Your task to perform on an android device: change alarm snooze length Image 0: 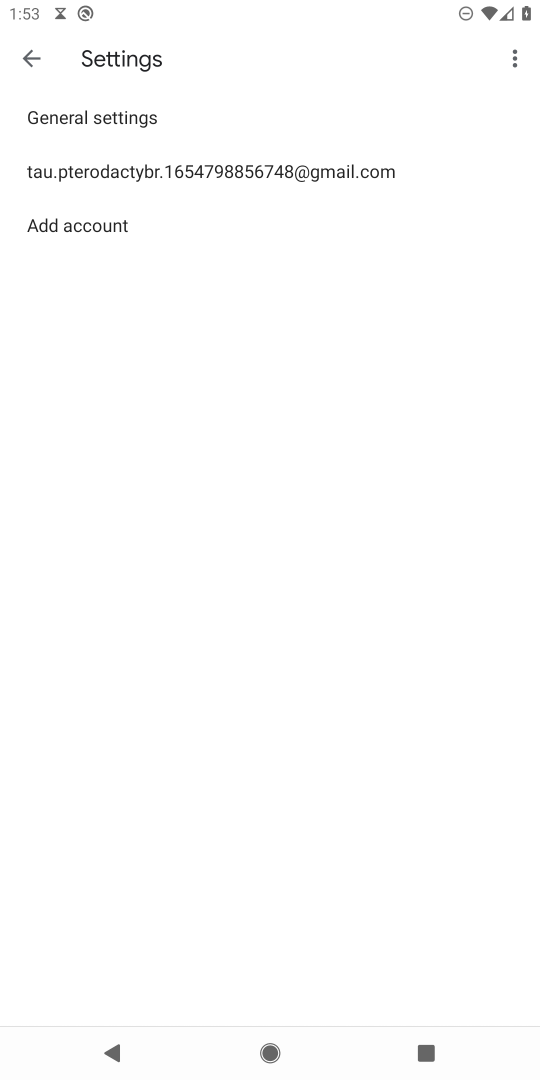
Step 0: press home button
Your task to perform on an android device: change alarm snooze length Image 1: 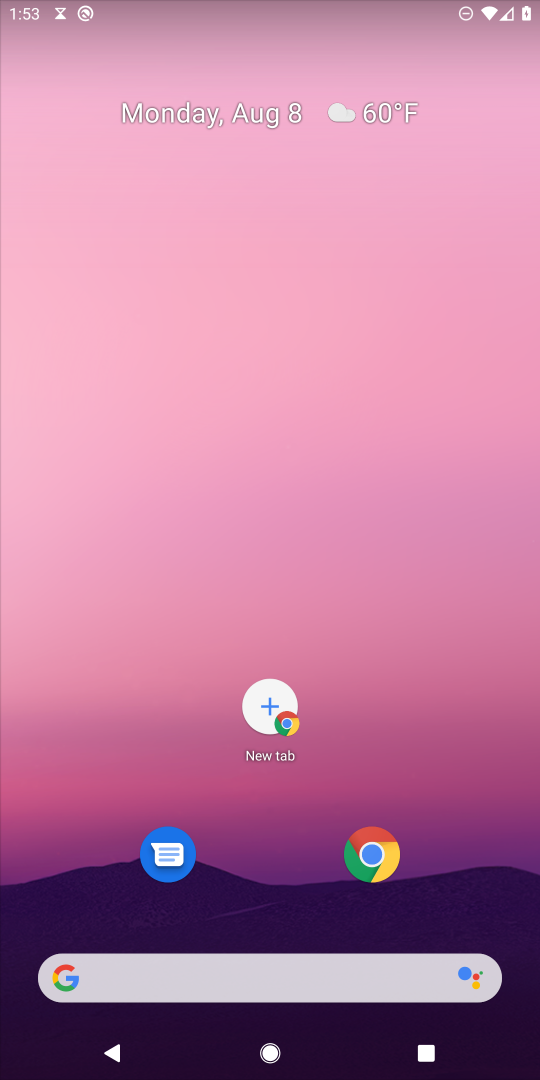
Step 1: drag from (474, 521) to (488, 177)
Your task to perform on an android device: change alarm snooze length Image 2: 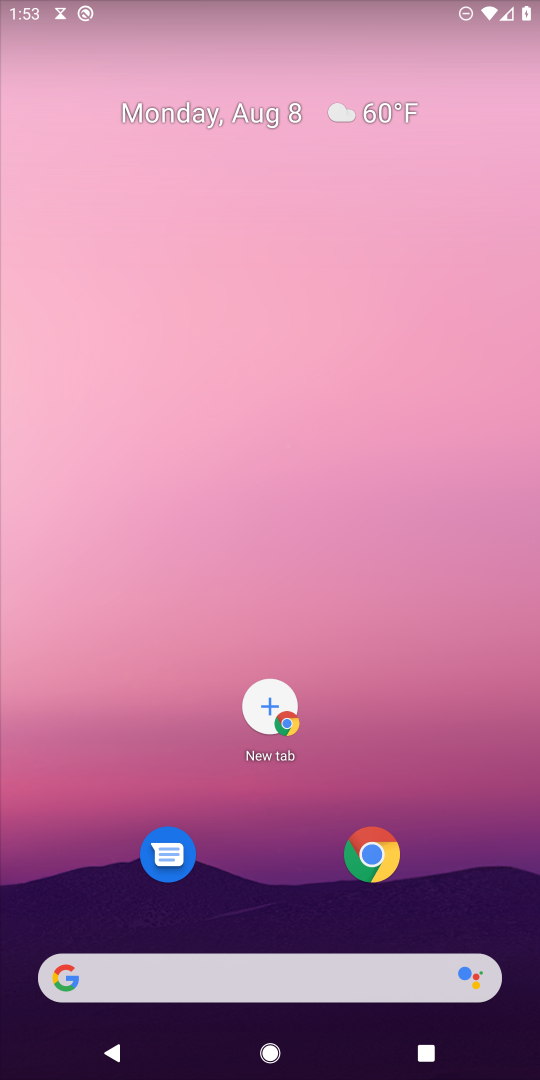
Step 2: drag from (445, 867) to (445, 74)
Your task to perform on an android device: change alarm snooze length Image 3: 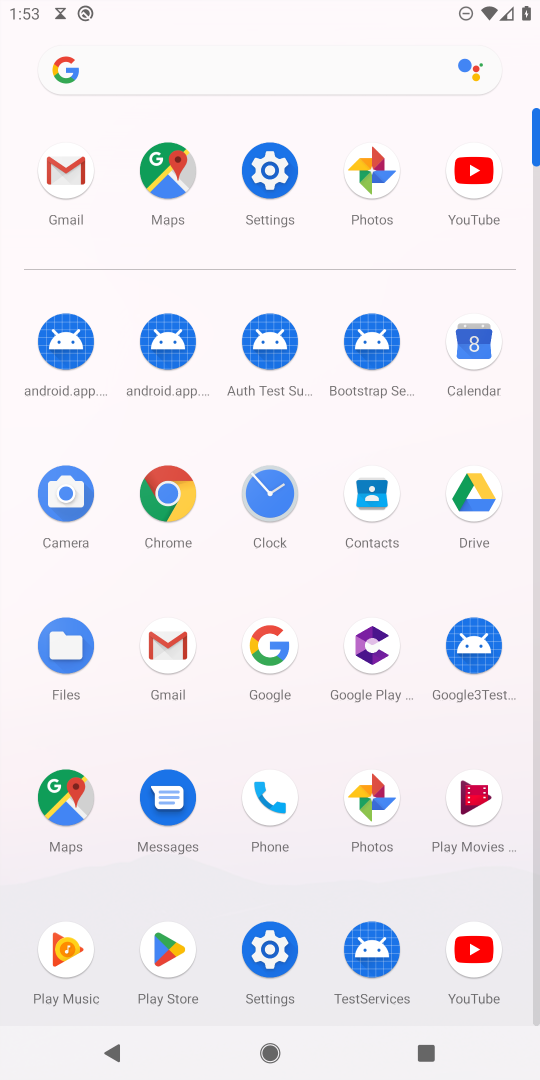
Step 3: click (283, 493)
Your task to perform on an android device: change alarm snooze length Image 4: 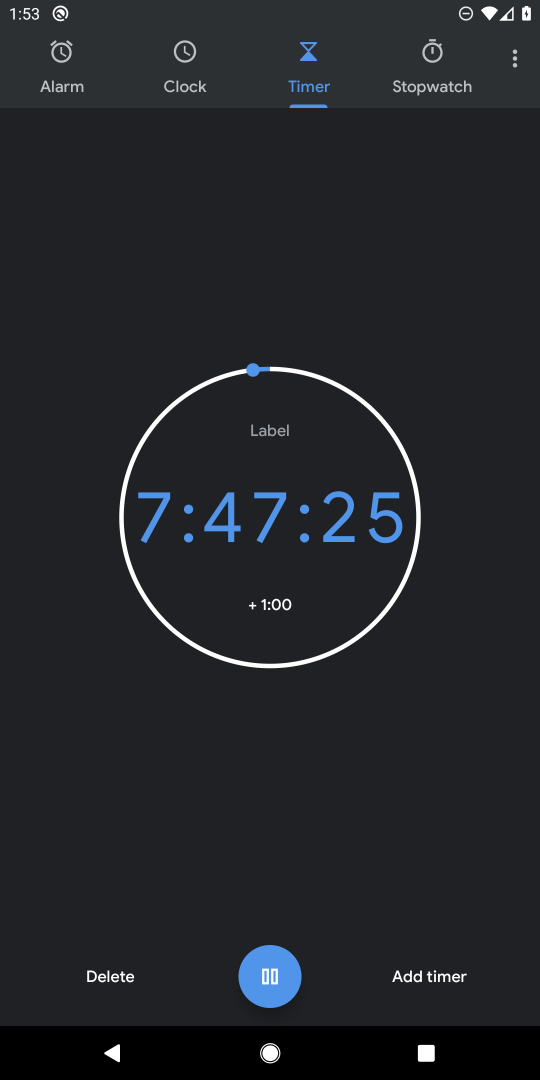
Step 4: click (52, 58)
Your task to perform on an android device: change alarm snooze length Image 5: 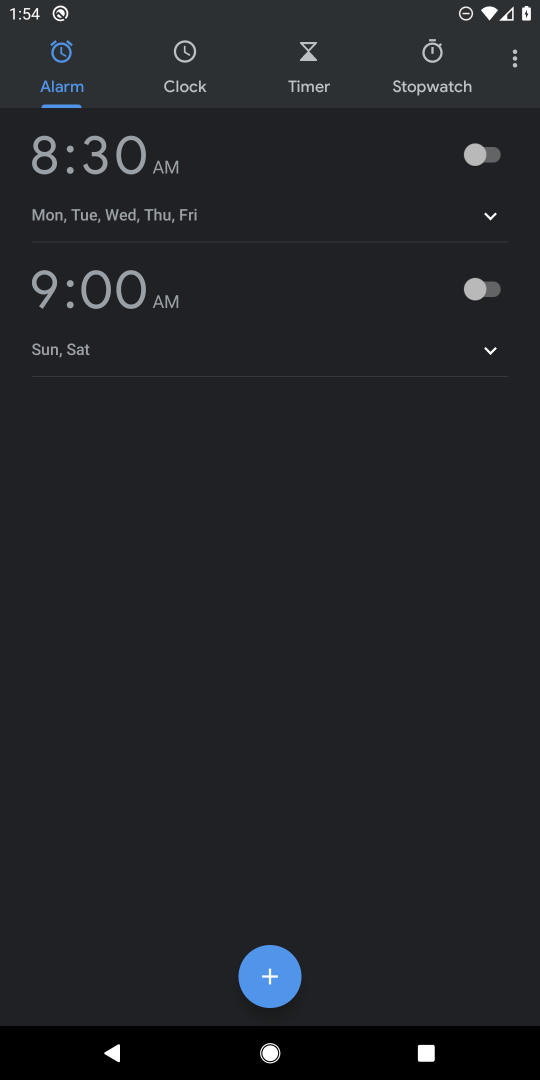
Step 5: click (514, 49)
Your task to perform on an android device: change alarm snooze length Image 6: 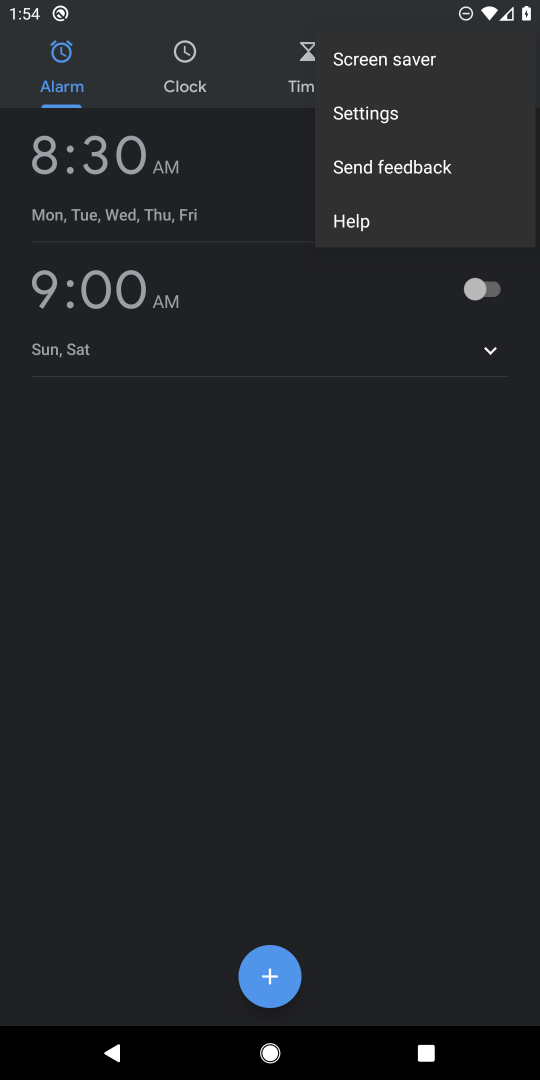
Step 6: click (408, 109)
Your task to perform on an android device: change alarm snooze length Image 7: 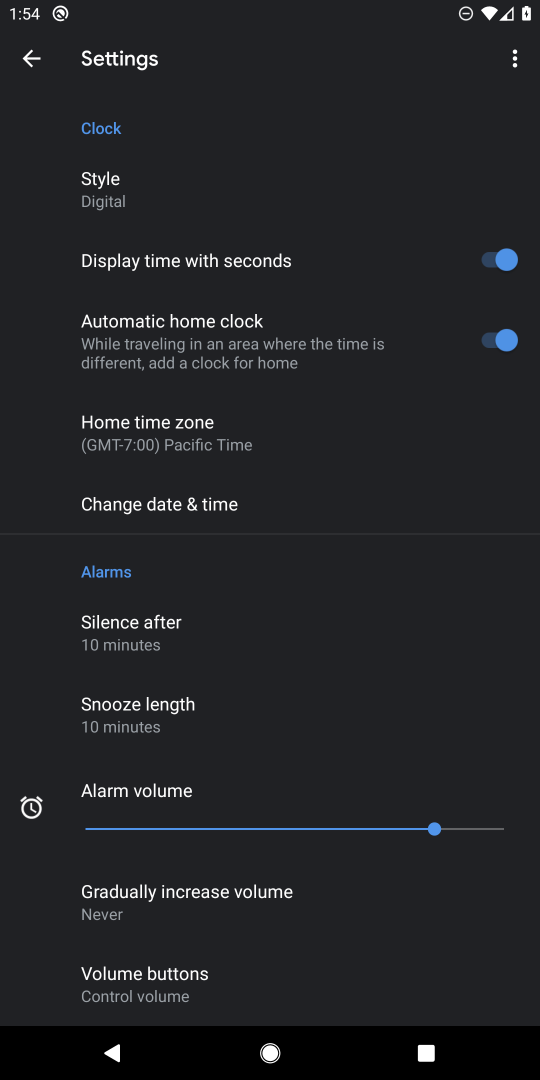
Step 7: click (160, 723)
Your task to perform on an android device: change alarm snooze length Image 8: 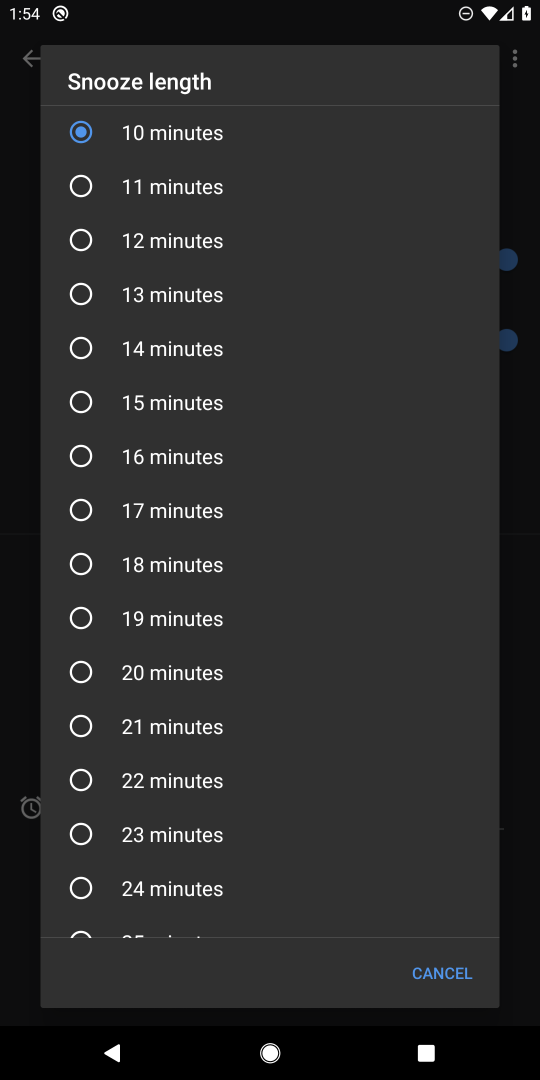
Step 8: click (83, 673)
Your task to perform on an android device: change alarm snooze length Image 9: 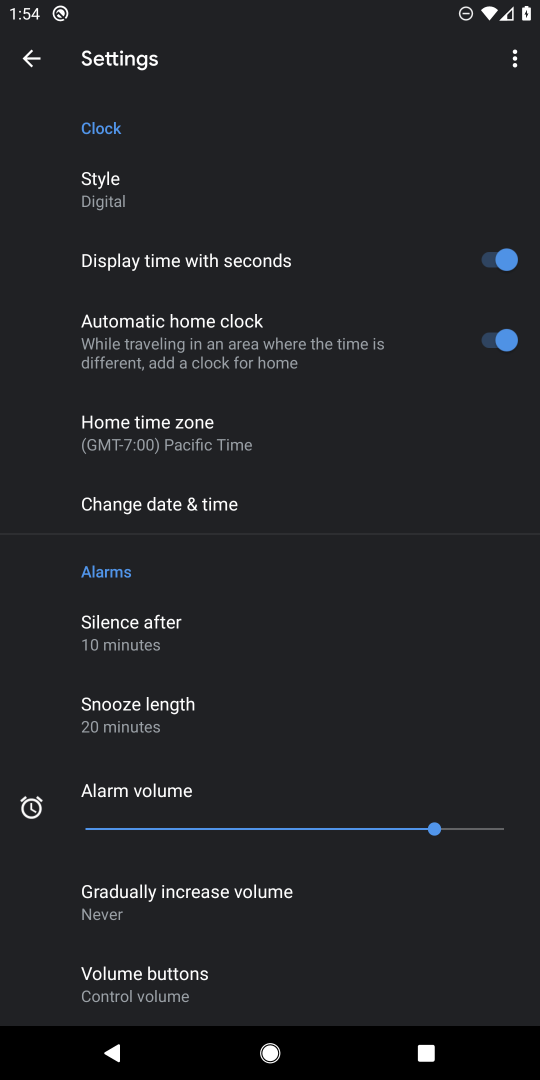
Step 9: task complete